Your task to perform on an android device: Search for vegetarian restaurants on Maps Image 0: 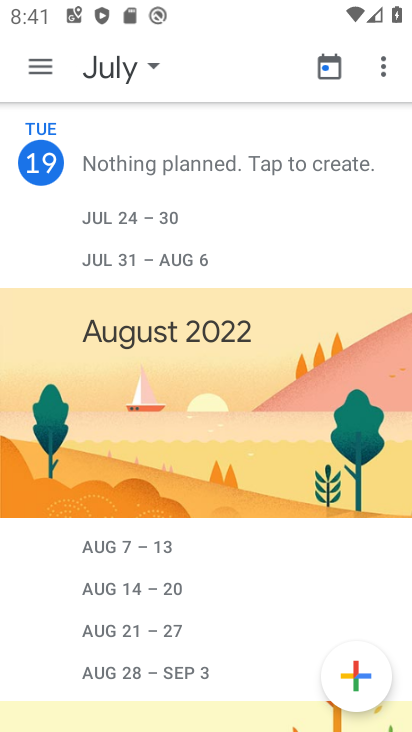
Step 0: press home button
Your task to perform on an android device: Search for vegetarian restaurants on Maps Image 1: 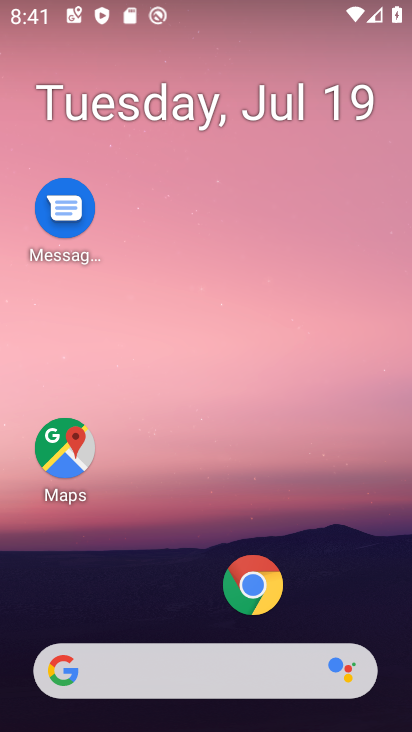
Step 1: click (57, 450)
Your task to perform on an android device: Search for vegetarian restaurants on Maps Image 2: 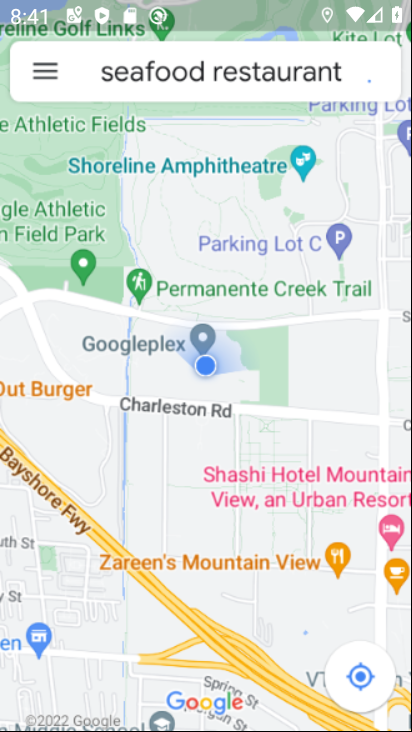
Step 2: click (348, 74)
Your task to perform on an android device: Search for vegetarian restaurants on Maps Image 3: 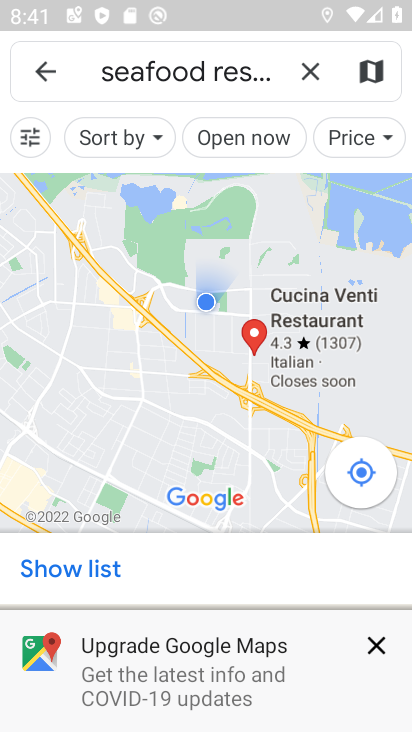
Step 3: click (312, 69)
Your task to perform on an android device: Search for vegetarian restaurants on Maps Image 4: 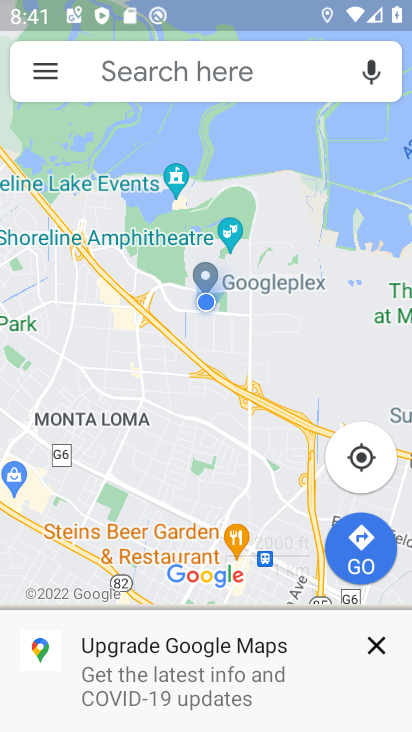
Step 4: click (170, 72)
Your task to perform on an android device: Search for vegetarian restaurants on Maps Image 5: 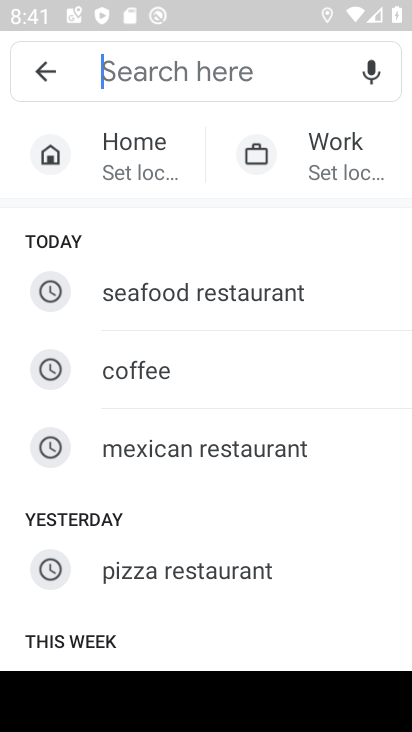
Step 5: drag from (143, 731) to (386, 704)
Your task to perform on an android device: Search for vegetarian restaurants on Maps Image 6: 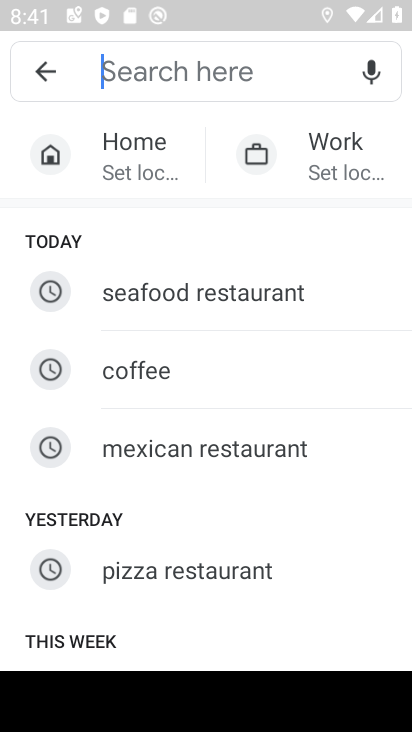
Step 6: type "vegetarian restaurants"
Your task to perform on an android device: Search for vegetarian restaurants on Maps Image 7: 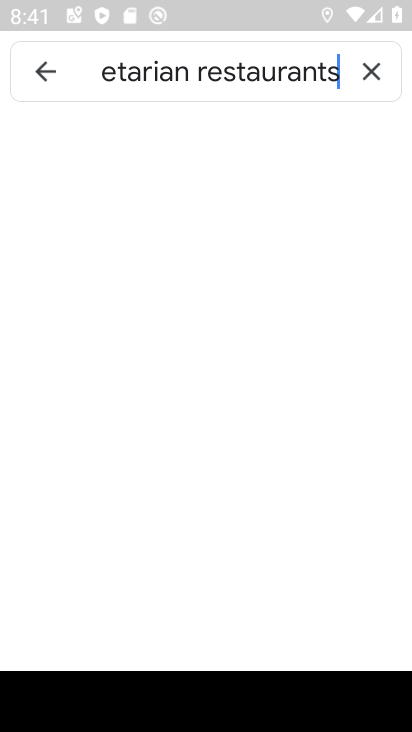
Step 7: drag from (386, 704) to (391, 158)
Your task to perform on an android device: Search for vegetarian restaurants on Maps Image 8: 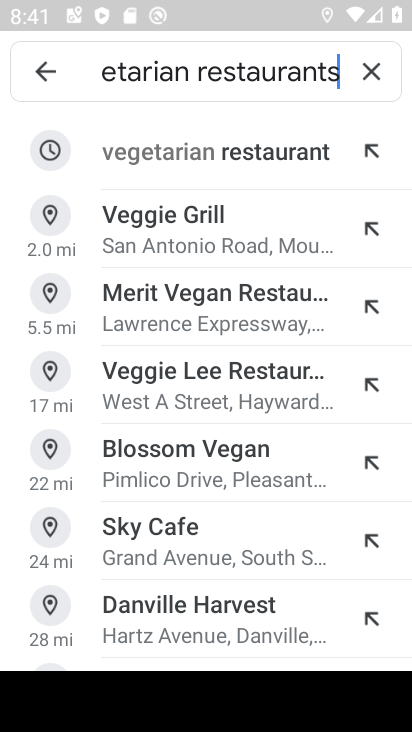
Step 8: click (273, 159)
Your task to perform on an android device: Search for vegetarian restaurants on Maps Image 9: 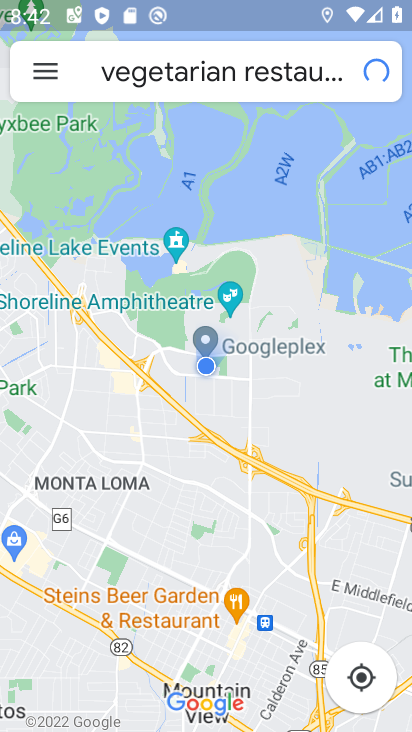
Step 9: task complete